Your task to perform on an android device: Go to CNN.com Image 0: 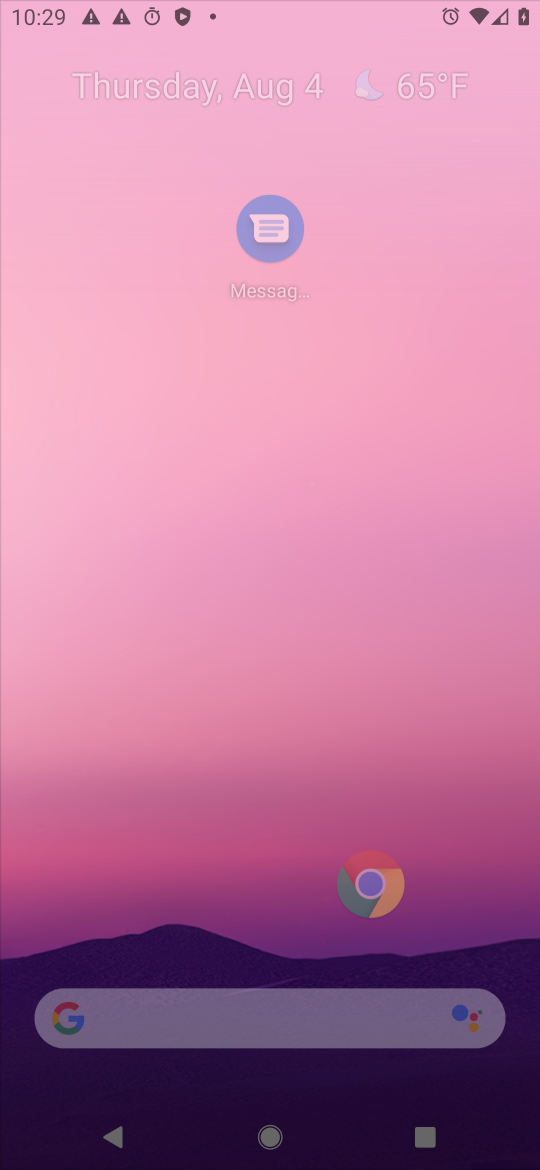
Step 0: click (293, 571)
Your task to perform on an android device: Go to CNN.com Image 1: 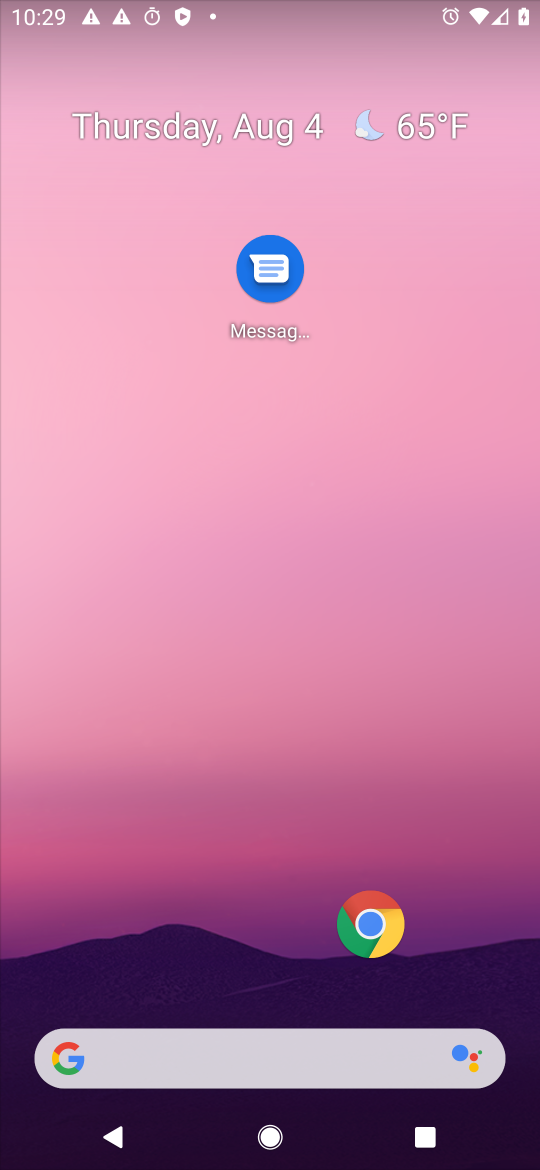
Step 1: drag from (296, 767) to (346, 415)
Your task to perform on an android device: Go to CNN.com Image 2: 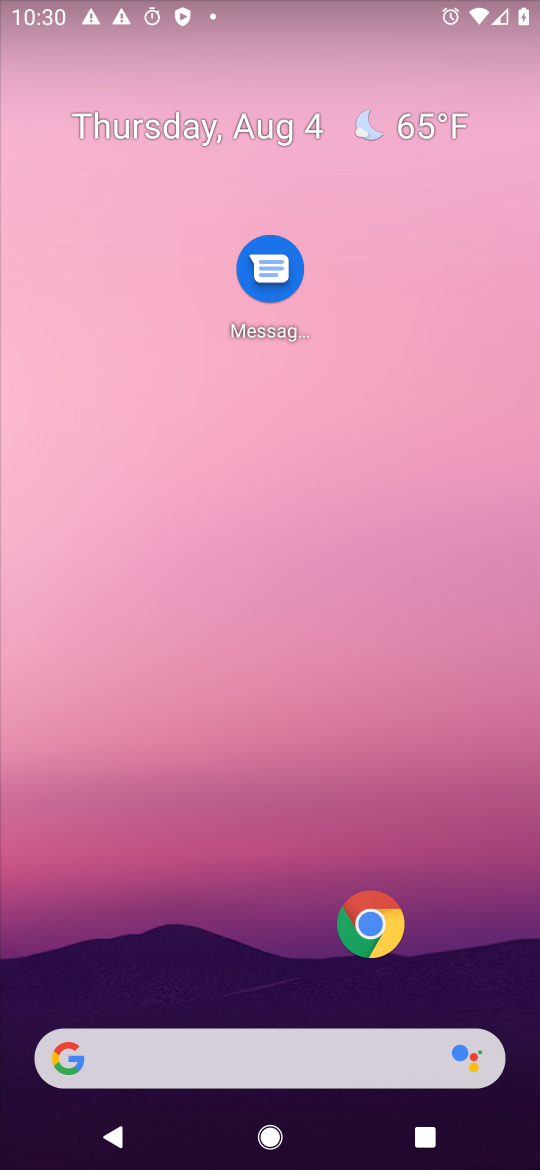
Step 2: drag from (268, 919) to (340, 266)
Your task to perform on an android device: Go to CNN.com Image 3: 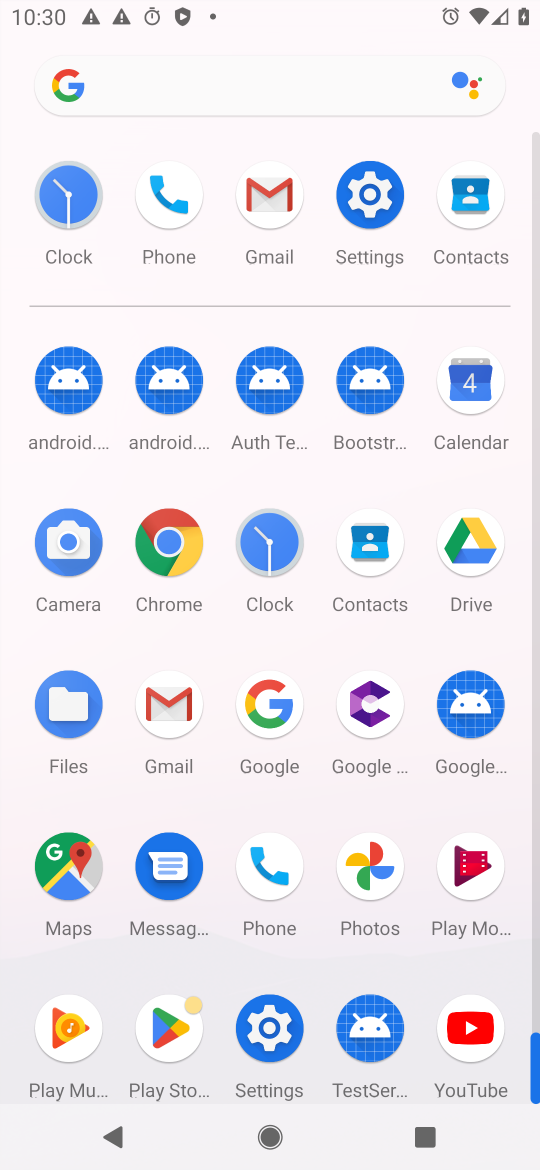
Step 3: click (158, 557)
Your task to perform on an android device: Go to CNN.com Image 4: 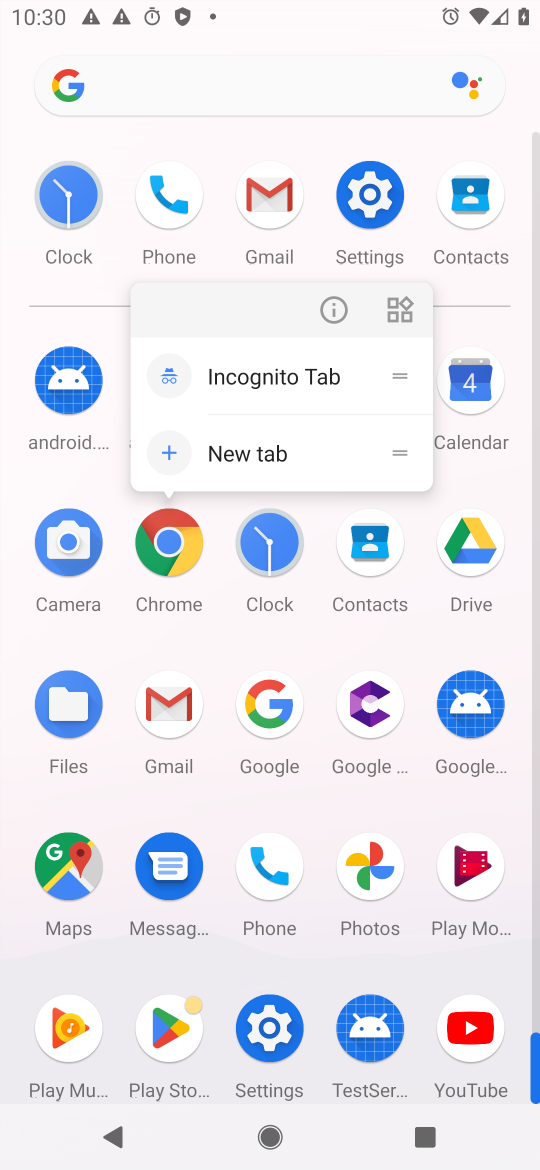
Step 4: click (343, 303)
Your task to perform on an android device: Go to CNN.com Image 5: 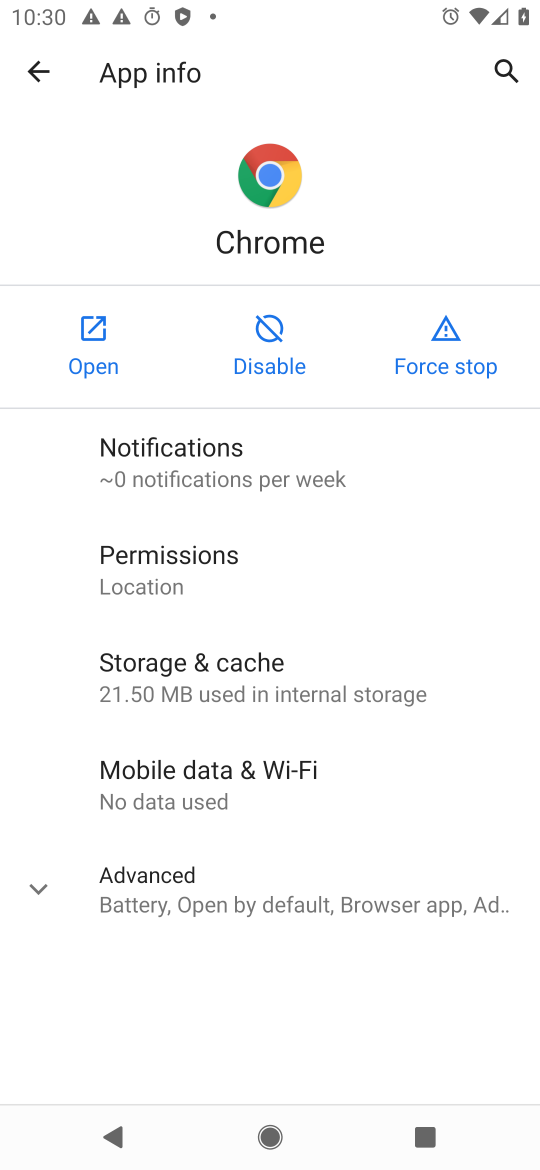
Step 5: click (94, 338)
Your task to perform on an android device: Go to CNN.com Image 6: 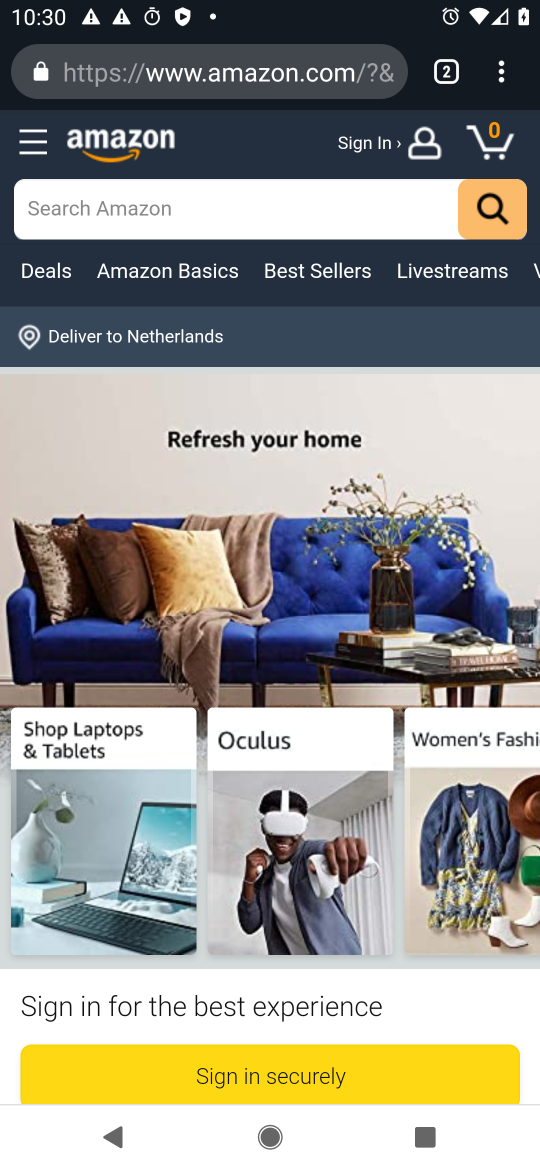
Step 6: click (165, 79)
Your task to perform on an android device: Go to CNN.com Image 7: 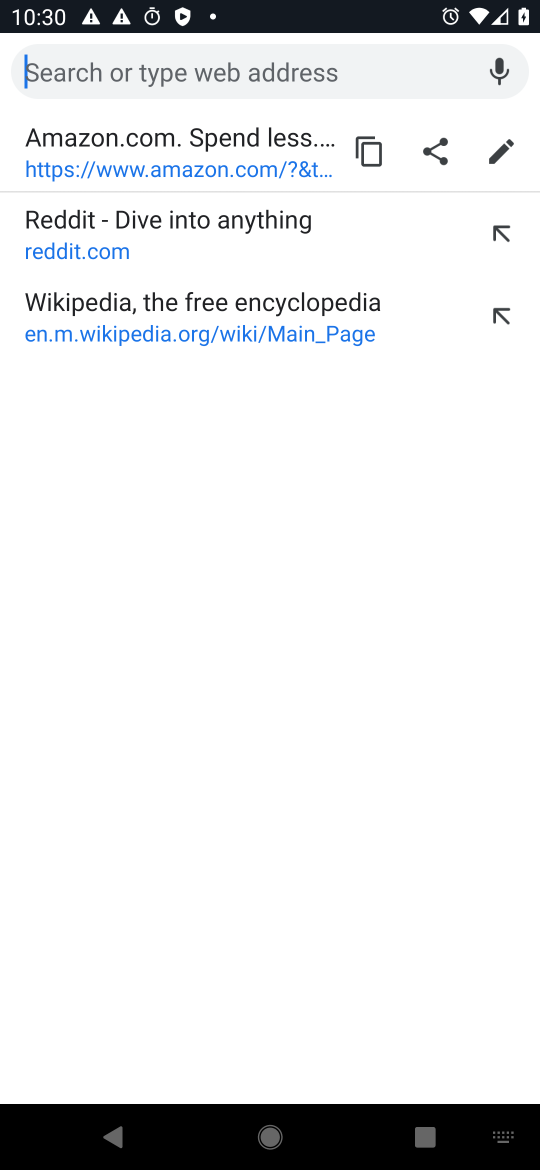
Step 7: type "cnn.com"
Your task to perform on an android device: Go to CNN.com Image 8: 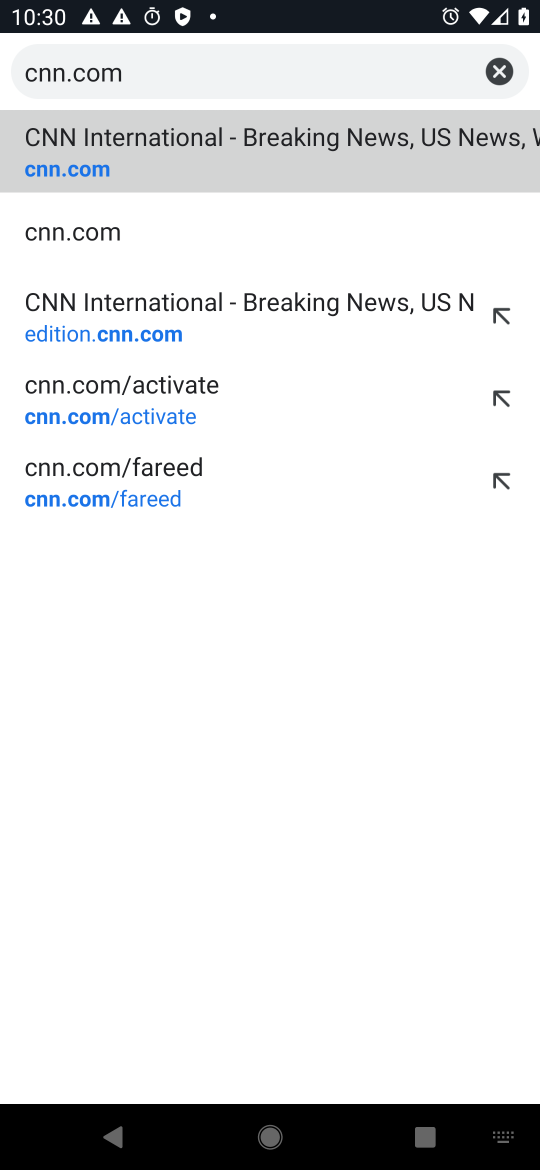
Step 8: click (97, 173)
Your task to perform on an android device: Go to CNN.com Image 9: 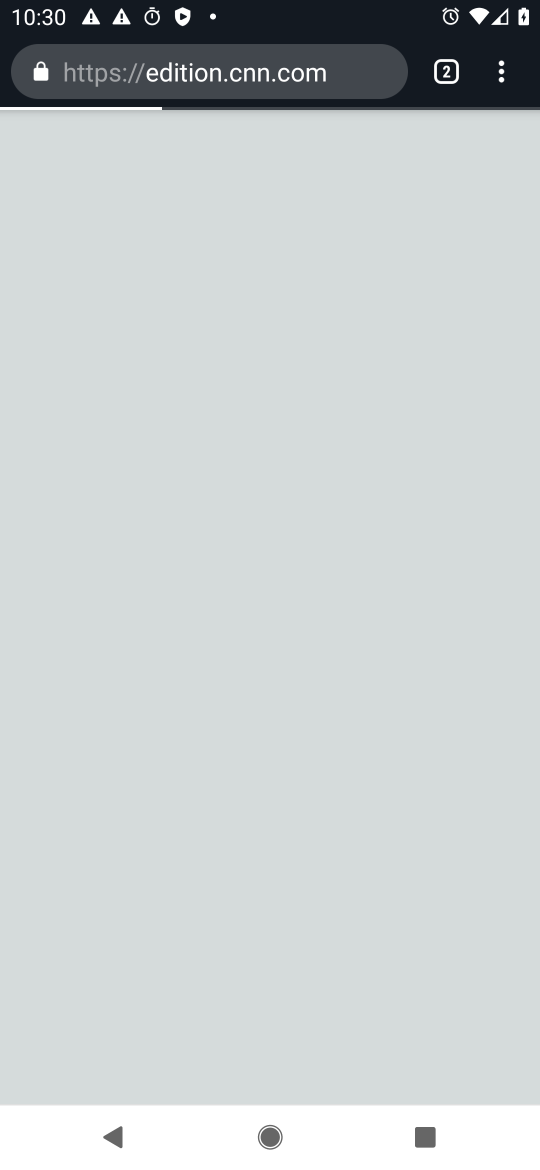
Step 9: drag from (253, 903) to (362, 296)
Your task to perform on an android device: Go to CNN.com Image 10: 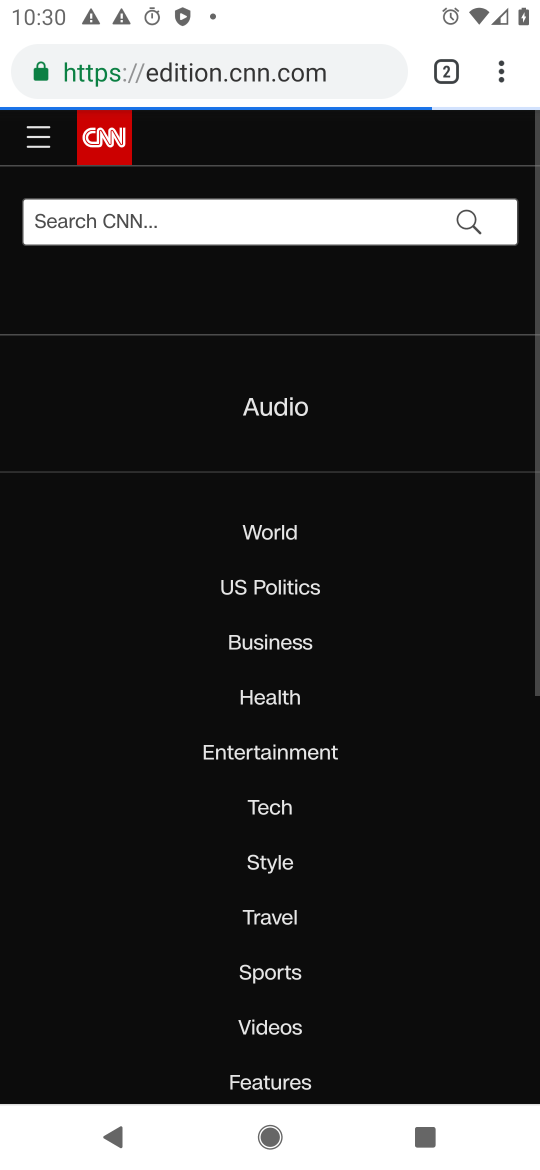
Step 10: click (238, 1123)
Your task to perform on an android device: Go to CNN.com Image 11: 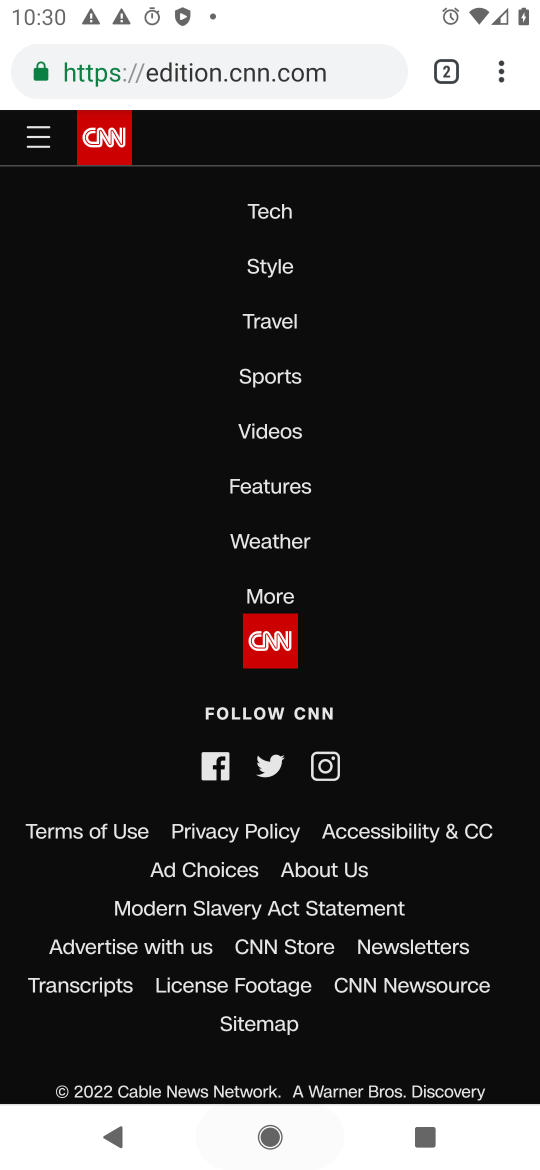
Step 11: drag from (340, 462) to (377, 131)
Your task to perform on an android device: Go to CNN.com Image 12: 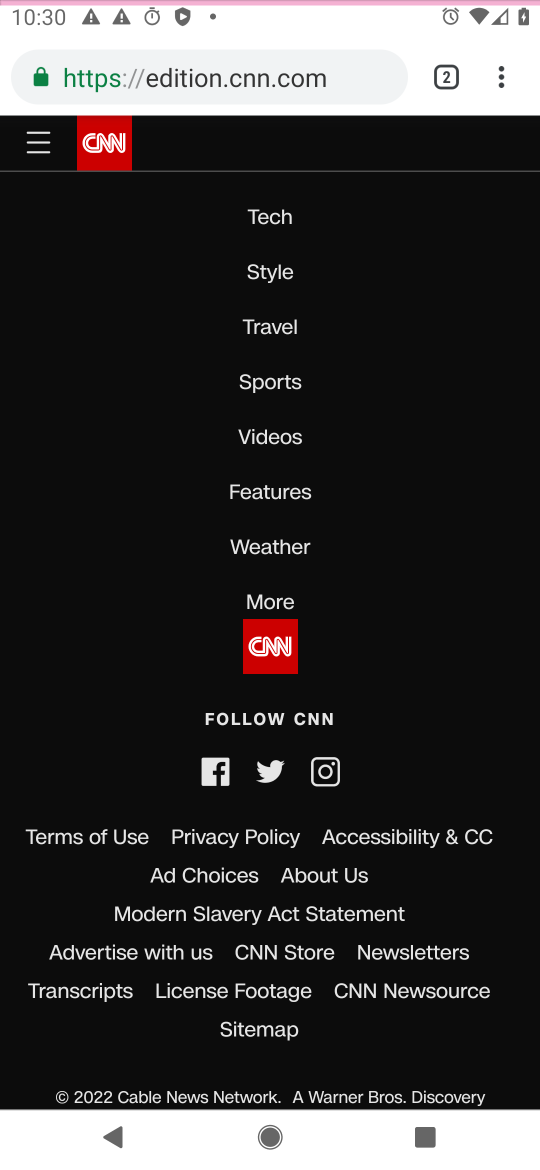
Step 12: drag from (163, 438) to (144, 1049)
Your task to perform on an android device: Go to CNN.com Image 13: 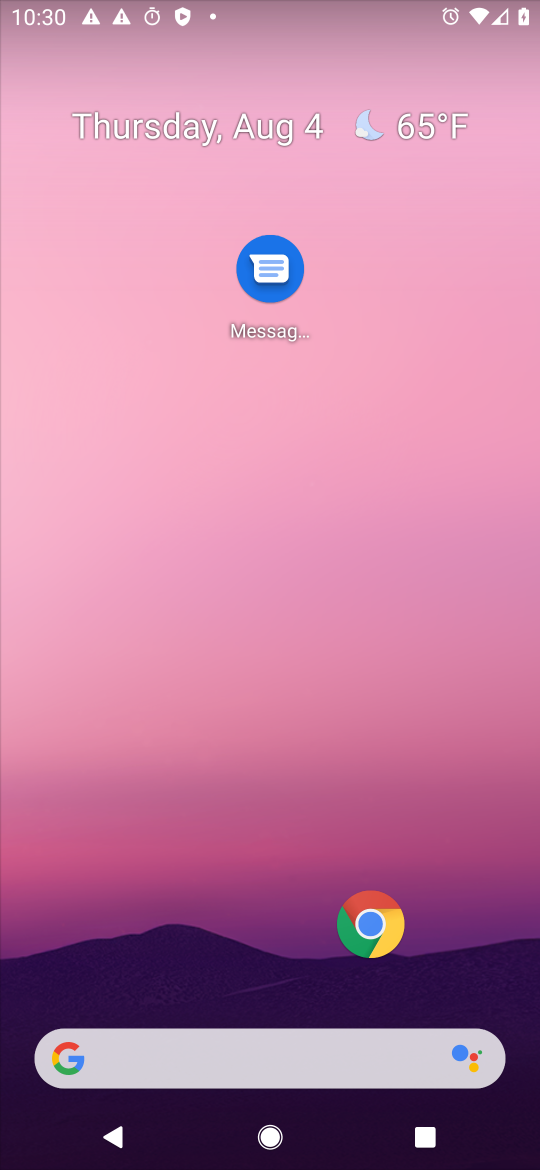
Step 13: drag from (223, 975) to (281, 223)
Your task to perform on an android device: Go to CNN.com Image 14: 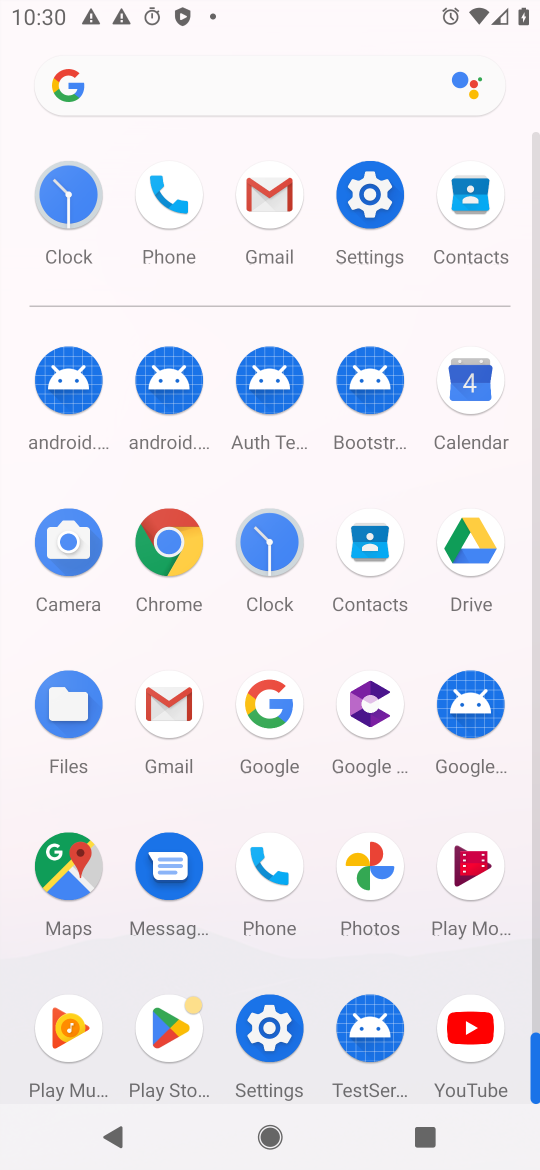
Step 14: click (211, 91)
Your task to perform on an android device: Go to CNN.com Image 15: 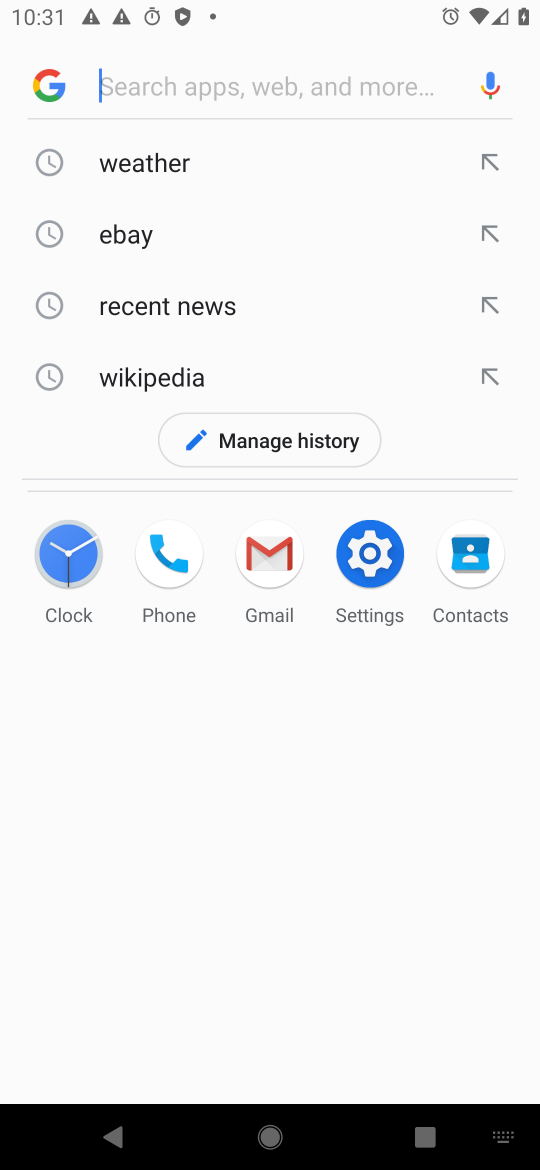
Step 15: type "CNN.com"
Your task to perform on an android device: Go to CNN.com Image 16: 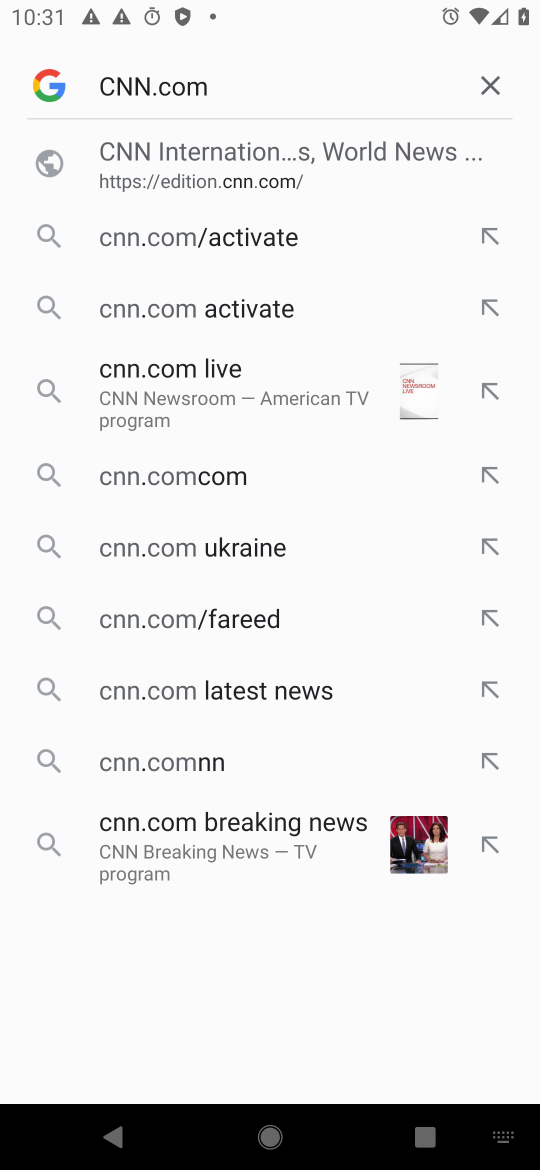
Step 16: click (155, 152)
Your task to perform on an android device: Go to CNN.com Image 17: 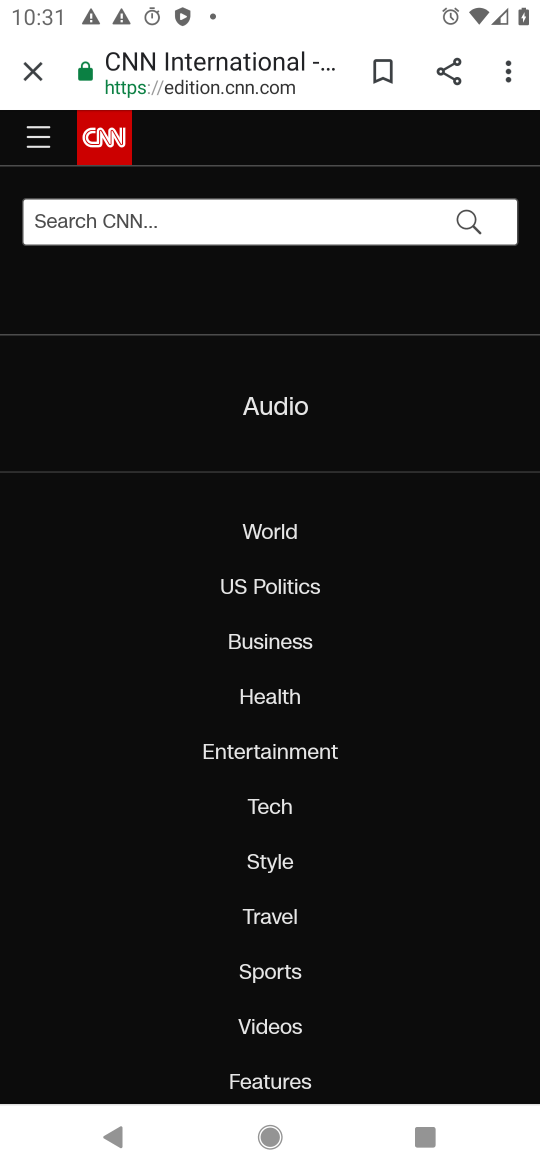
Step 17: task complete